Your task to perform on an android device: Open CNN.com Image 0: 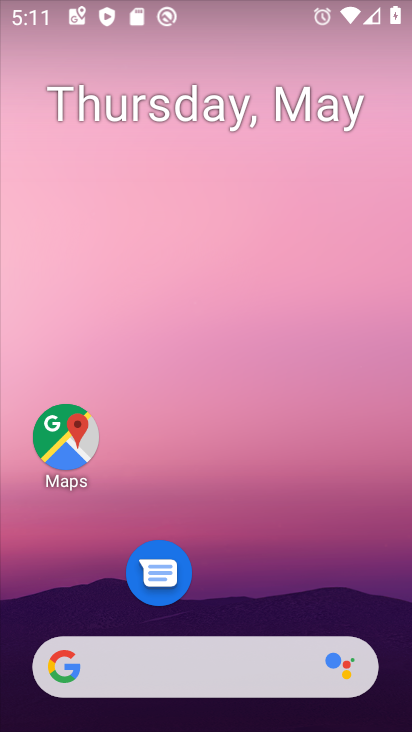
Step 0: drag from (227, 584) to (297, 30)
Your task to perform on an android device: Open CNN.com Image 1: 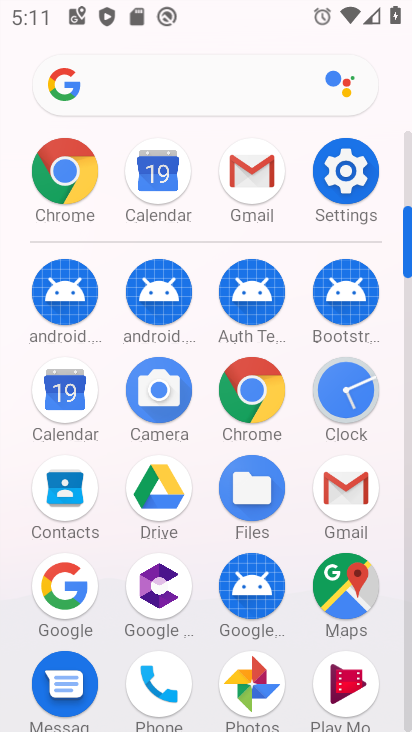
Step 1: click (55, 211)
Your task to perform on an android device: Open CNN.com Image 2: 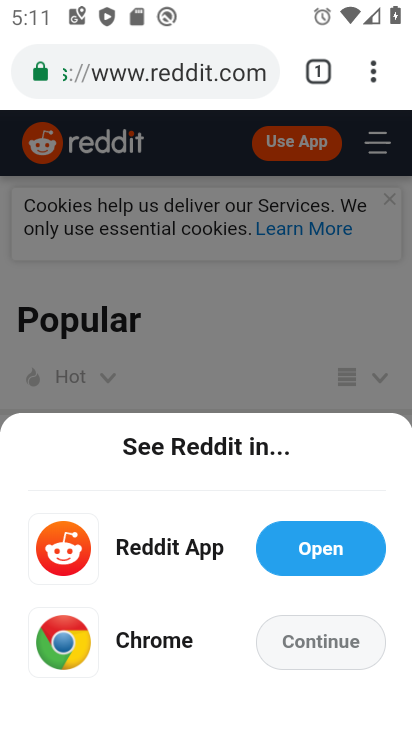
Step 2: click (204, 90)
Your task to perform on an android device: Open CNN.com Image 3: 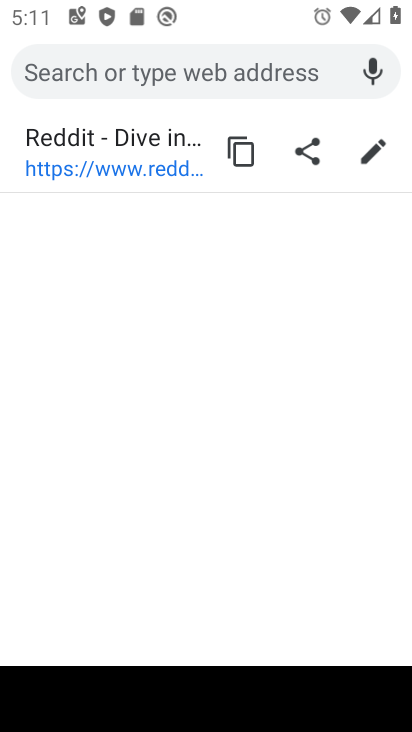
Step 3: type "www.cnn.com"
Your task to perform on an android device: Open CNN.com Image 4: 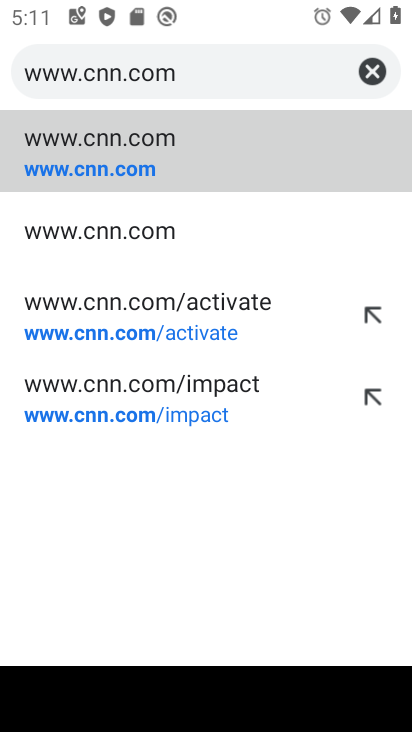
Step 4: click (118, 152)
Your task to perform on an android device: Open CNN.com Image 5: 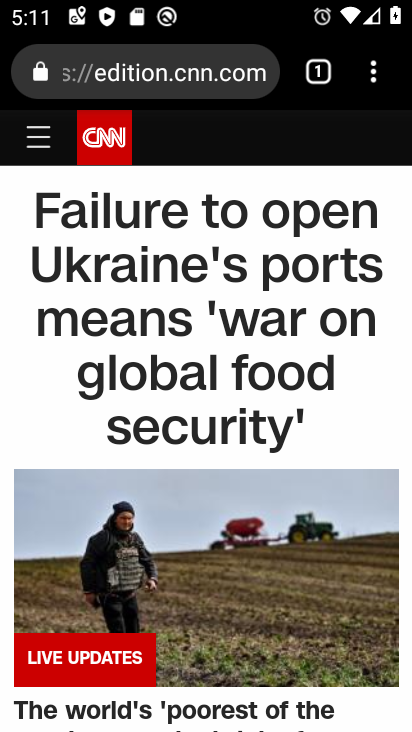
Step 5: task complete